Your task to perform on an android device: See recent photos Image 0: 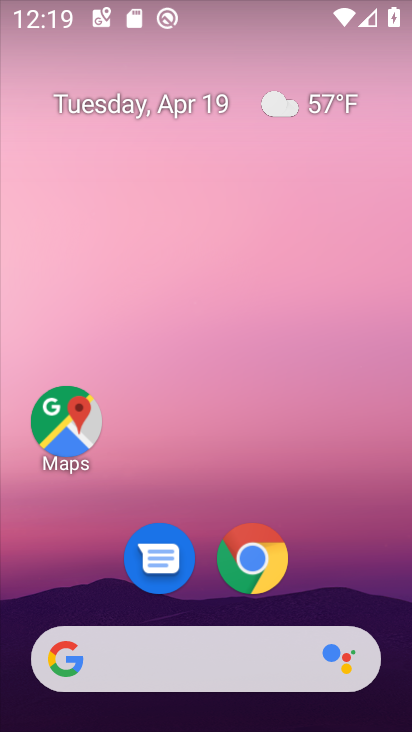
Step 0: drag from (344, 422) to (283, 153)
Your task to perform on an android device: See recent photos Image 1: 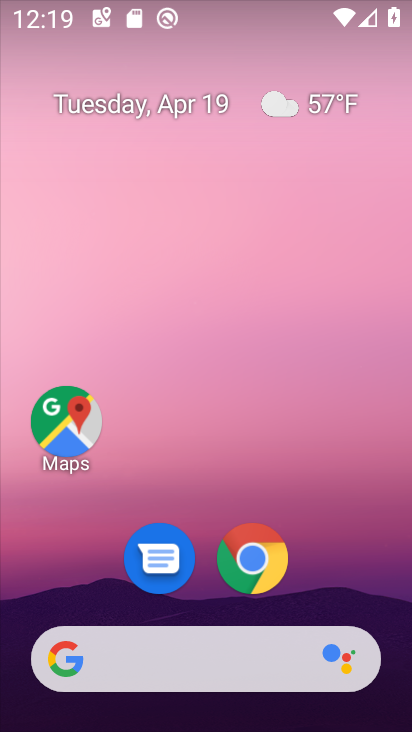
Step 1: drag from (314, 560) to (151, 63)
Your task to perform on an android device: See recent photos Image 2: 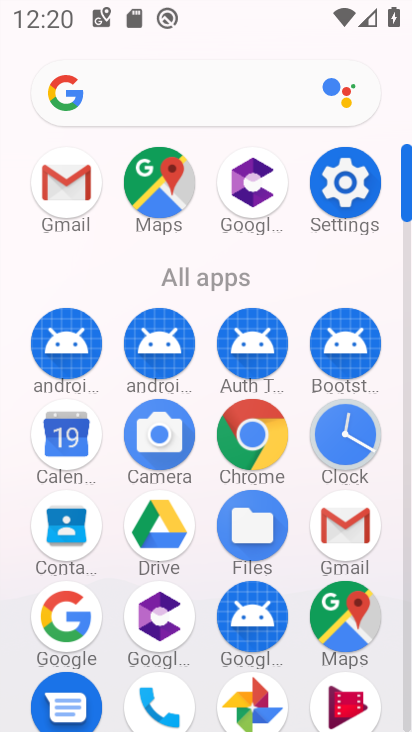
Step 2: drag from (214, 659) to (203, 271)
Your task to perform on an android device: See recent photos Image 3: 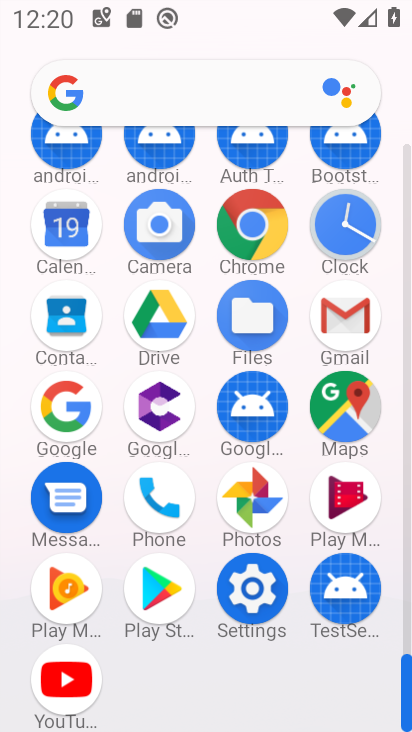
Step 3: click (250, 514)
Your task to perform on an android device: See recent photos Image 4: 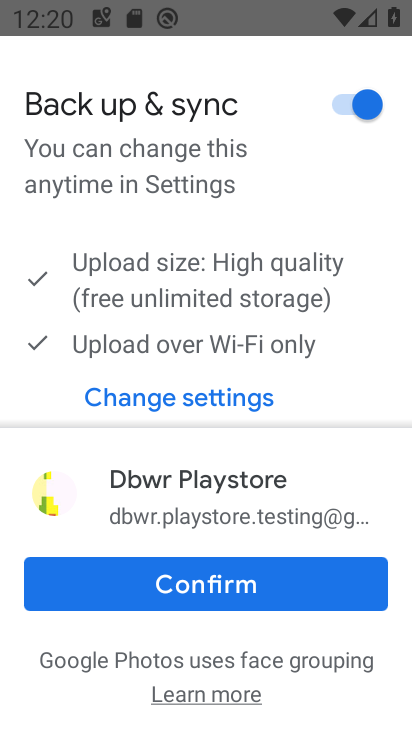
Step 4: click (226, 589)
Your task to perform on an android device: See recent photos Image 5: 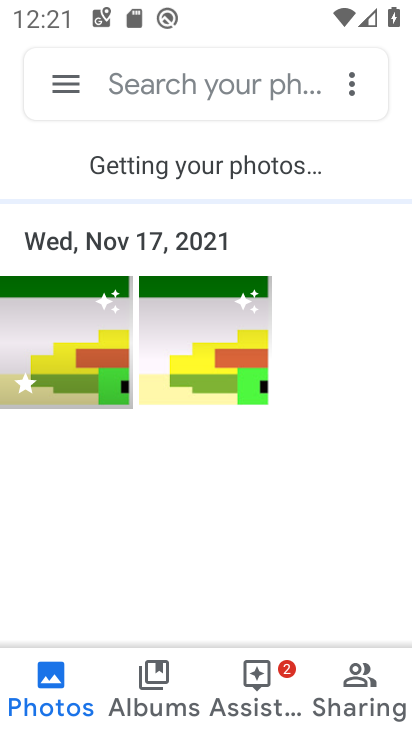
Step 5: task complete